Your task to perform on an android device: Open eBay Image 0: 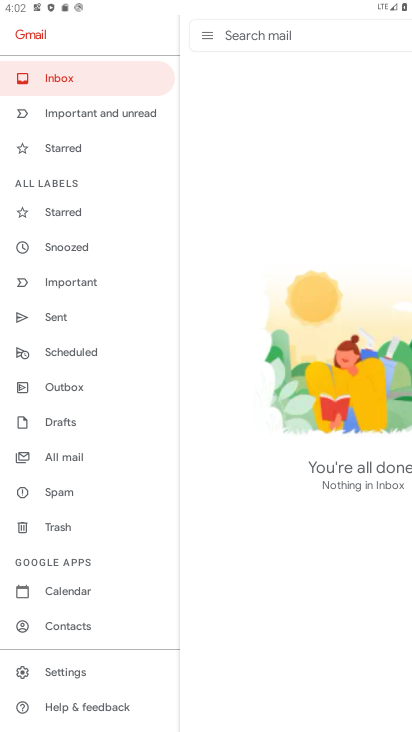
Step 0: press home button
Your task to perform on an android device: Open eBay Image 1: 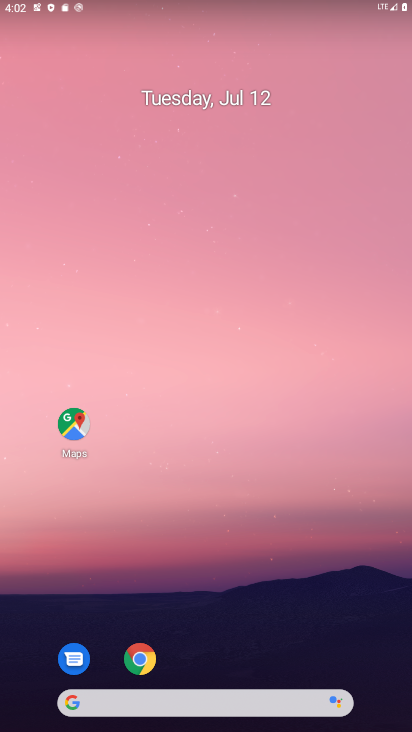
Step 1: drag from (227, 725) to (227, 524)
Your task to perform on an android device: Open eBay Image 2: 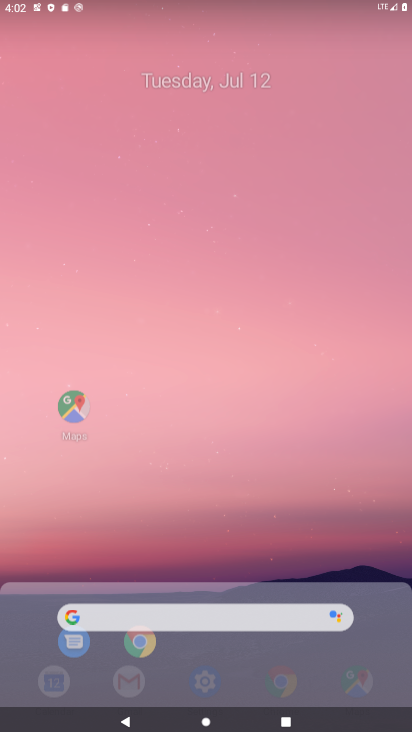
Step 2: click (227, 262)
Your task to perform on an android device: Open eBay Image 3: 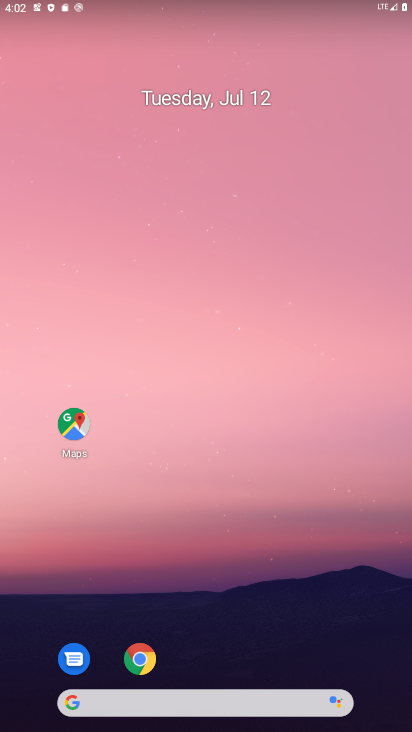
Step 3: click (144, 657)
Your task to perform on an android device: Open eBay Image 4: 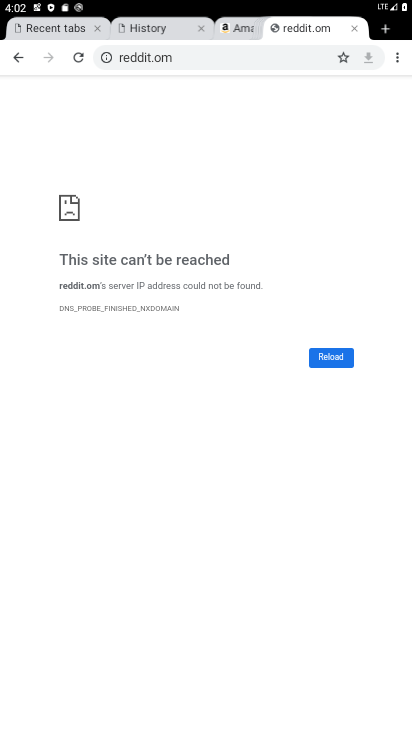
Step 4: task complete